Your task to perform on an android device: Open Google Maps Image 0: 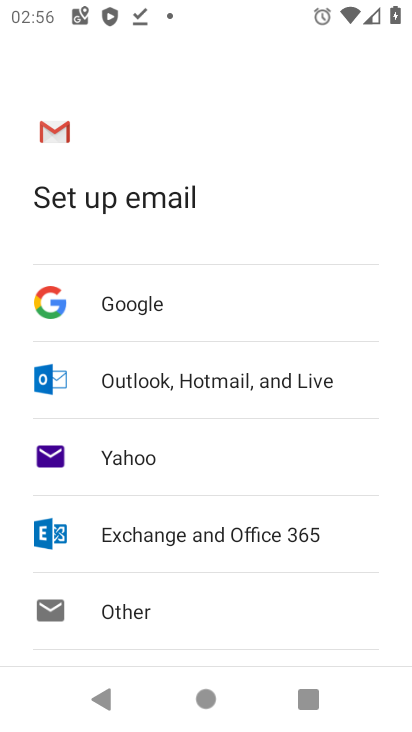
Step 0: press home button
Your task to perform on an android device: Open Google Maps Image 1: 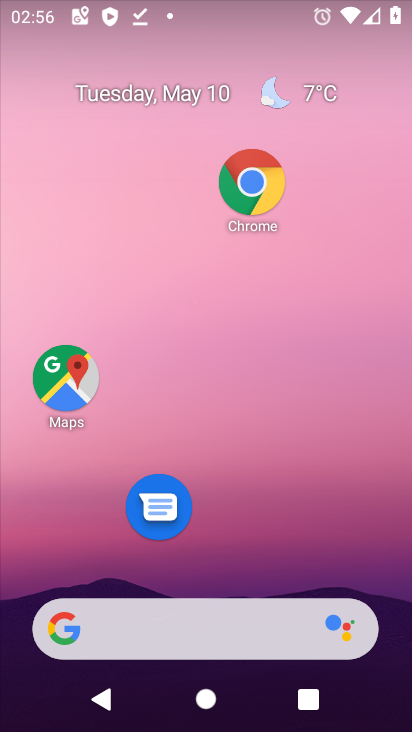
Step 1: click (75, 355)
Your task to perform on an android device: Open Google Maps Image 2: 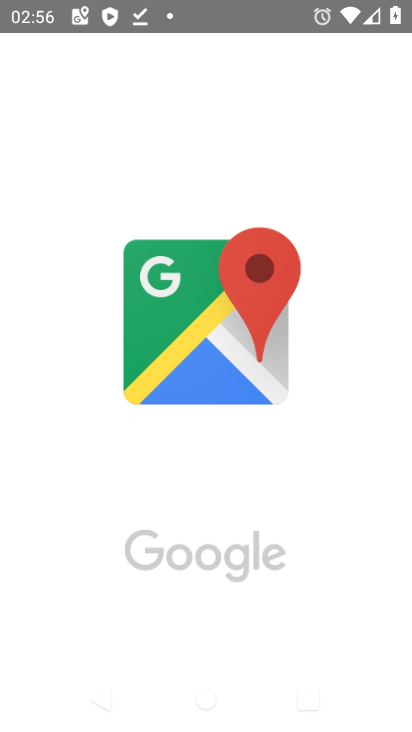
Step 2: task complete